Your task to perform on an android device: turn off data saver in the chrome app Image 0: 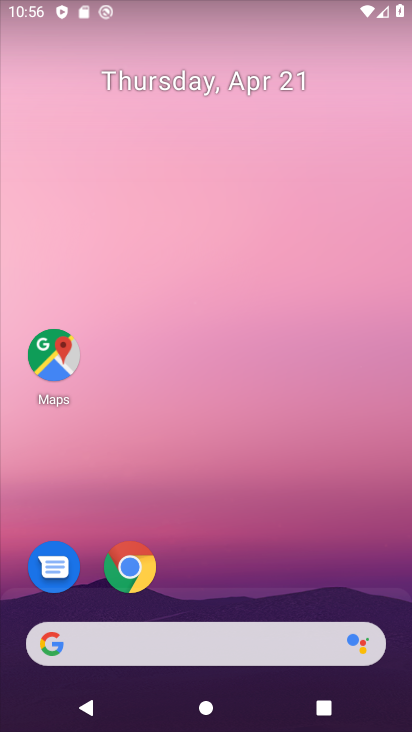
Step 0: click (128, 569)
Your task to perform on an android device: turn off data saver in the chrome app Image 1: 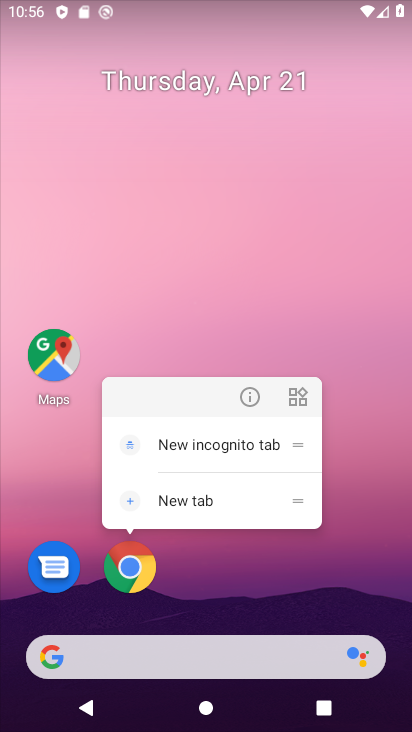
Step 1: click (199, 509)
Your task to perform on an android device: turn off data saver in the chrome app Image 2: 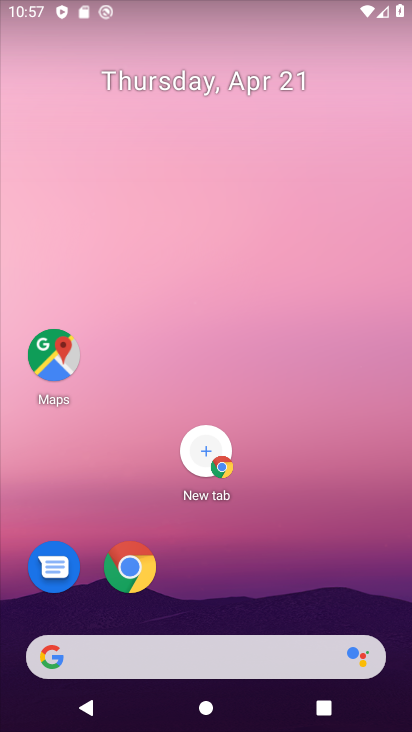
Step 2: click (206, 450)
Your task to perform on an android device: turn off data saver in the chrome app Image 3: 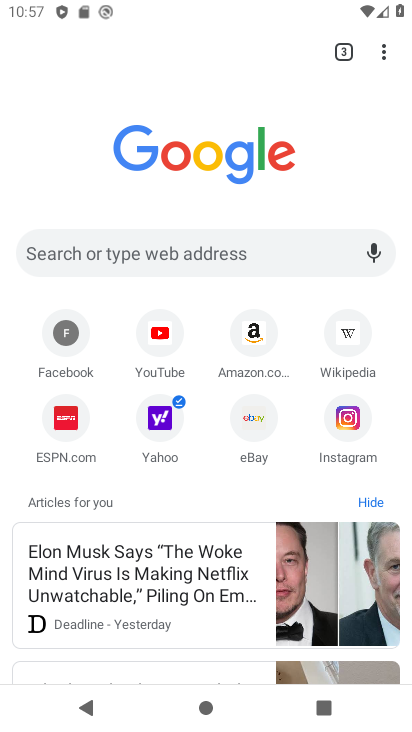
Step 3: click (206, 450)
Your task to perform on an android device: turn off data saver in the chrome app Image 4: 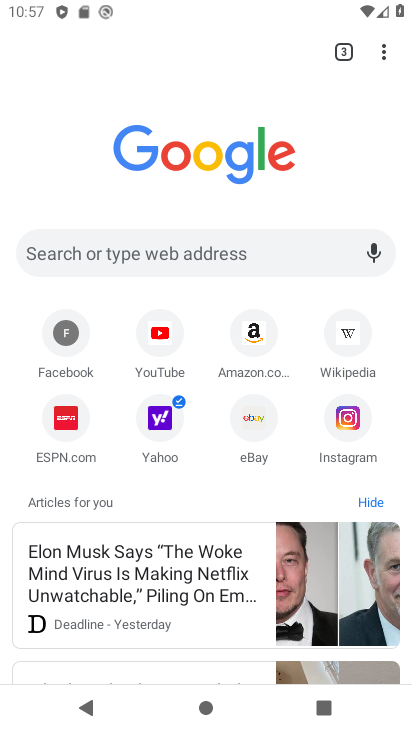
Step 4: click (379, 46)
Your task to perform on an android device: turn off data saver in the chrome app Image 5: 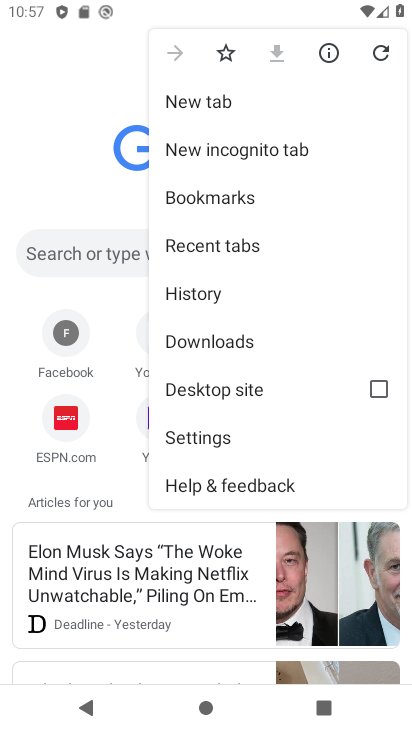
Step 5: click (205, 446)
Your task to perform on an android device: turn off data saver in the chrome app Image 6: 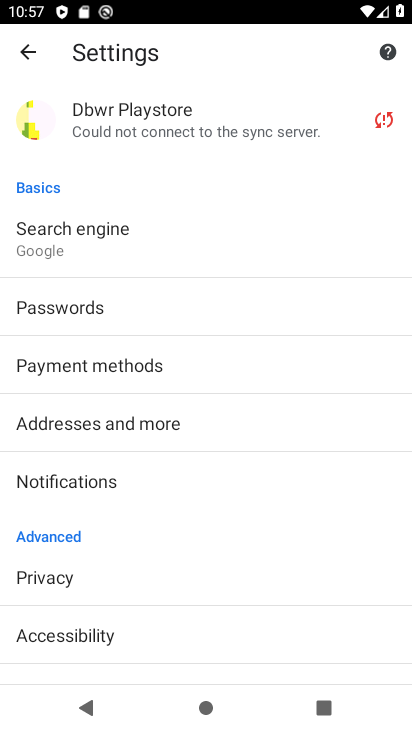
Step 6: drag from (119, 592) to (117, 200)
Your task to perform on an android device: turn off data saver in the chrome app Image 7: 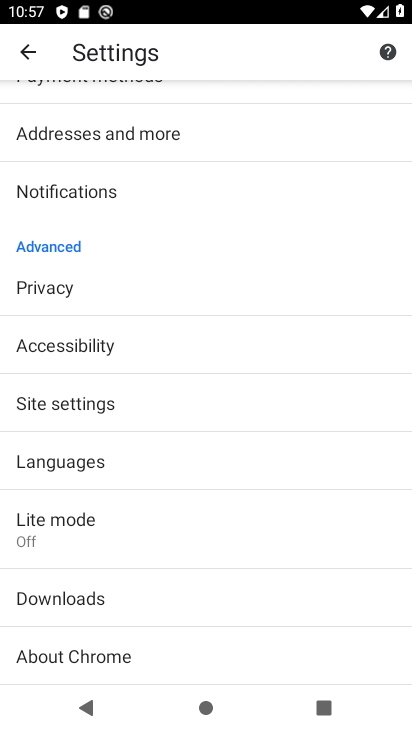
Step 7: click (153, 512)
Your task to perform on an android device: turn off data saver in the chrome app Image 8: 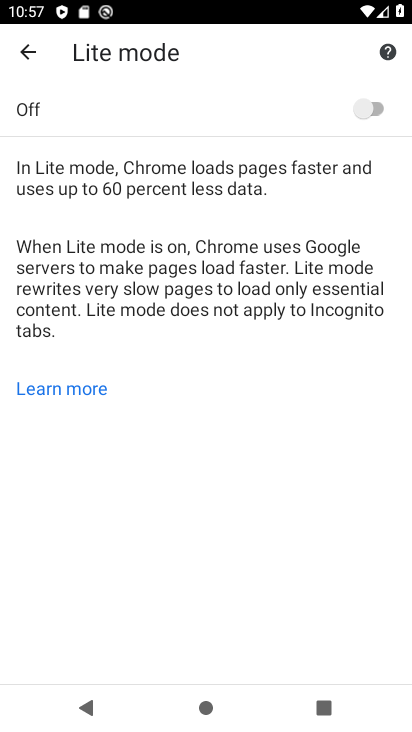
Step 8: task complete